Your task to perform on an android device: see creations saved in the google photos Image 0: 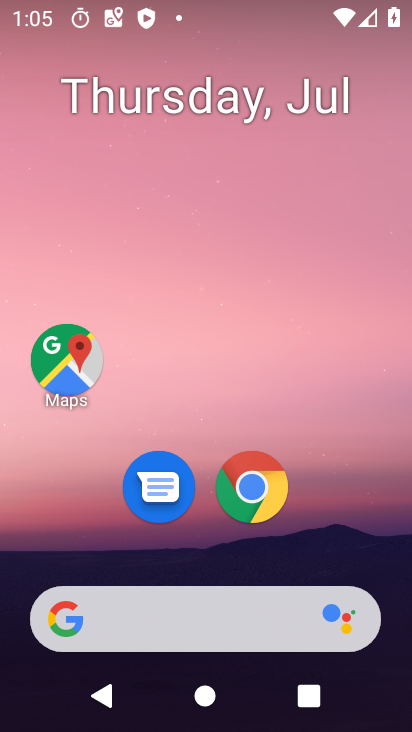
Step 0: drag from (184, 530) to (182, 228)
Your task to perform on an android device: see creations saved in the google photos Image 1: 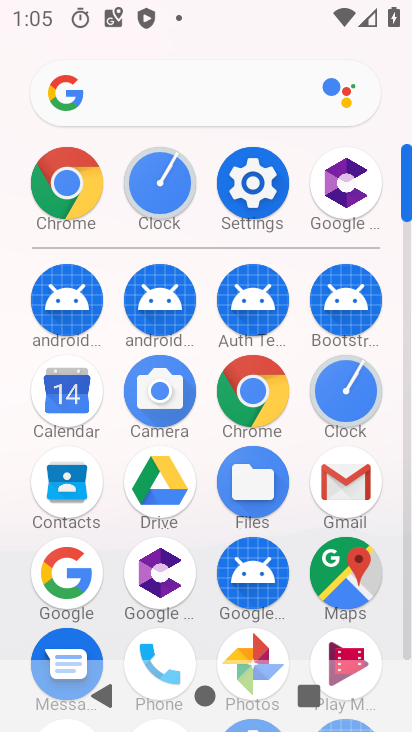
Step 1: drag from (210, 491) to (233, 315)
Your task to perform on an android device: see creations saved in the google photos Image 2: 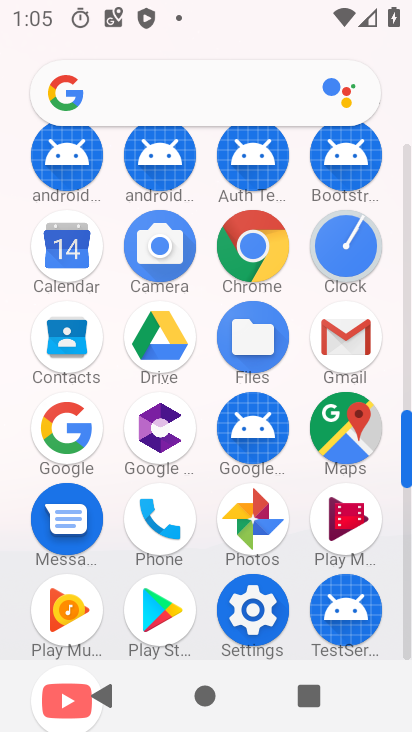
Step 2: click (253, 520)
Your task to perform on an android device: see creations saved in the google photos Image 3: 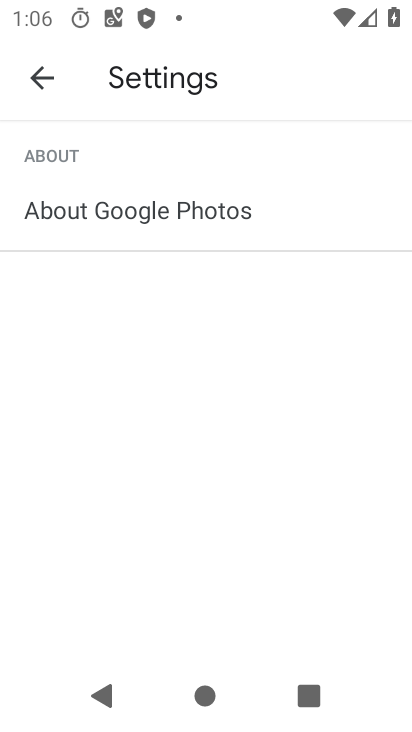
Step 3: click (41, 82)
Your task to perform on an android device: see creations saved in the google photos Image 4: 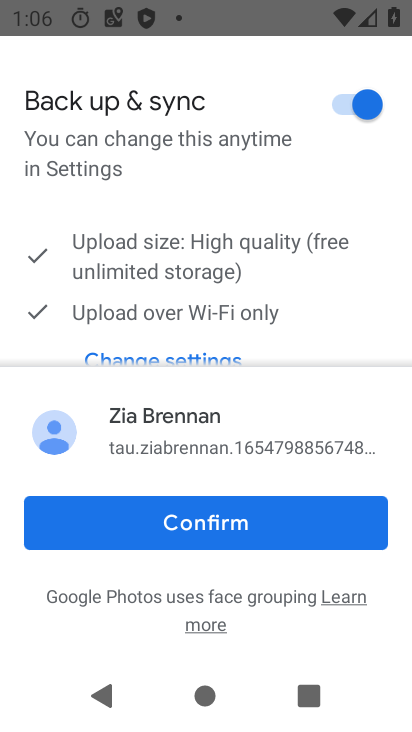
Step 4: click (244, 526)
Your task to perform on an android device: see creations saved in the google photos Image 5: 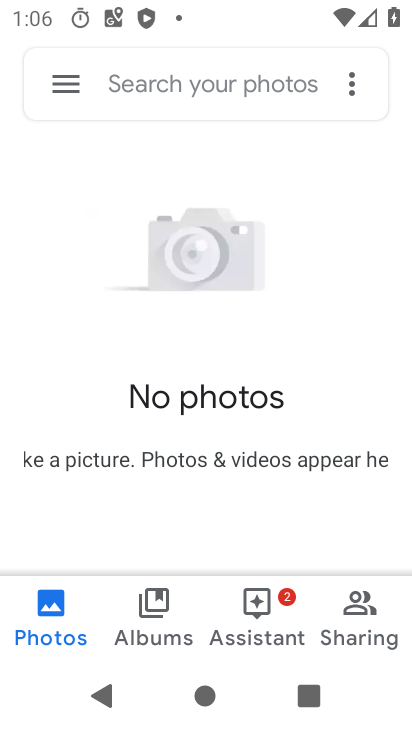
Step 5: click (256, 615)
Your task to perform on an android device: see creations saved in the google photos Image 6: 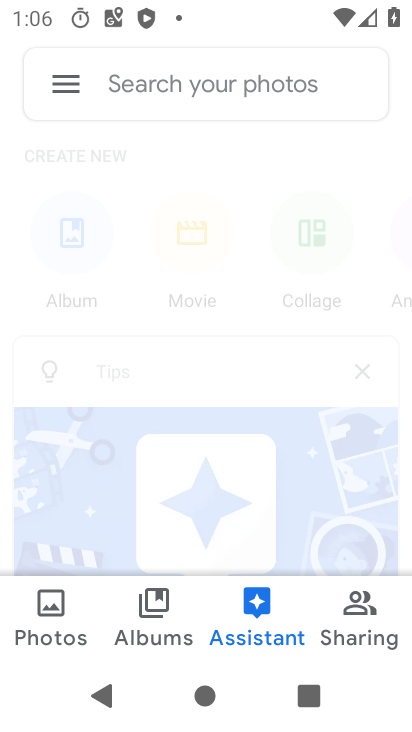
Step 6: click (163, 612)
Your task to perform on an android device: see creations saved in the google photos Image 7: 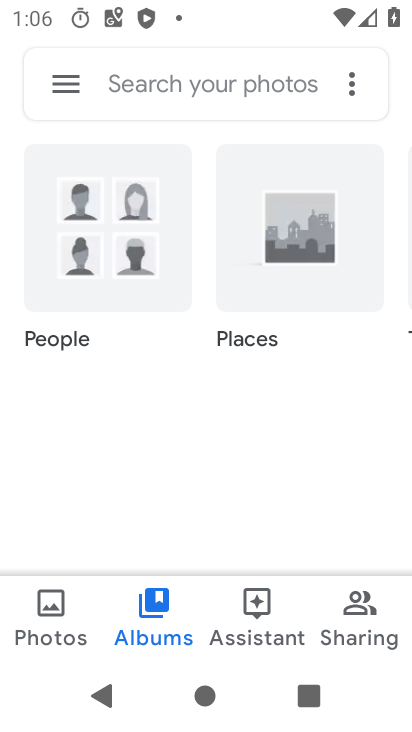
Step 7: click (381, 627)
Your task to perform on an android device: see creations saved in the google photos Image 8: 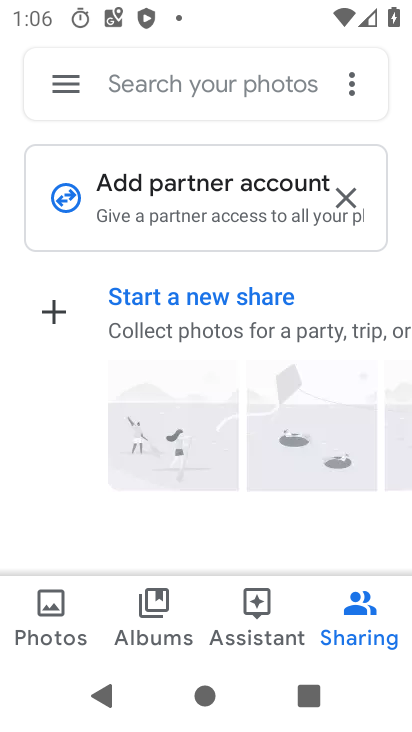
Step 8: task complete